Your task to perform on an android device: turn on airplane mode Image 0: 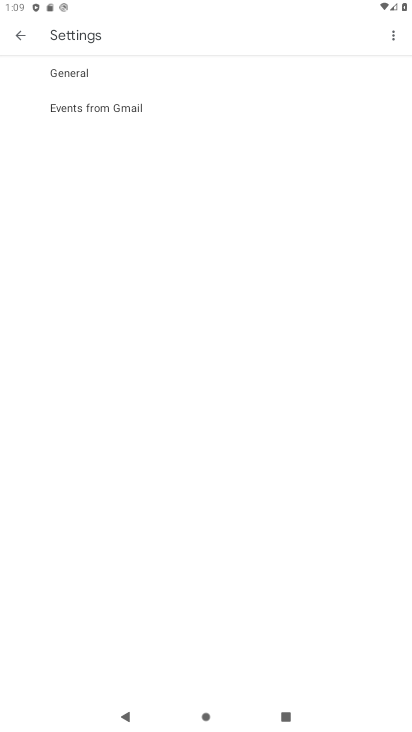
Step 0: press home button
Your task to perform on an android device: turn on airplane mode Image 1: 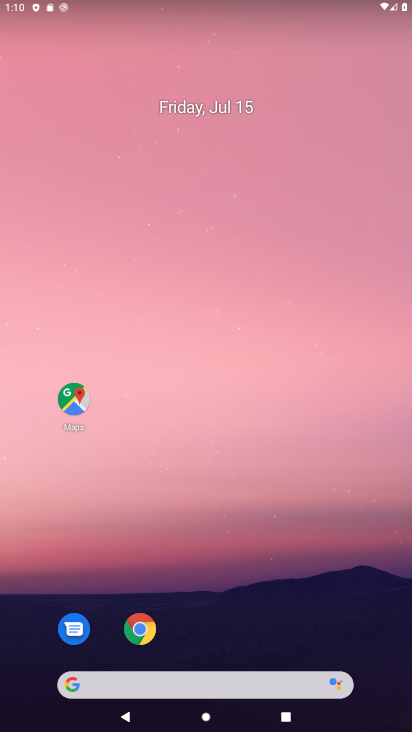
Step 1: drag from (369, 6) to (157, 729)
Your task to perform on an android device: turn on airplane mode Image 2: 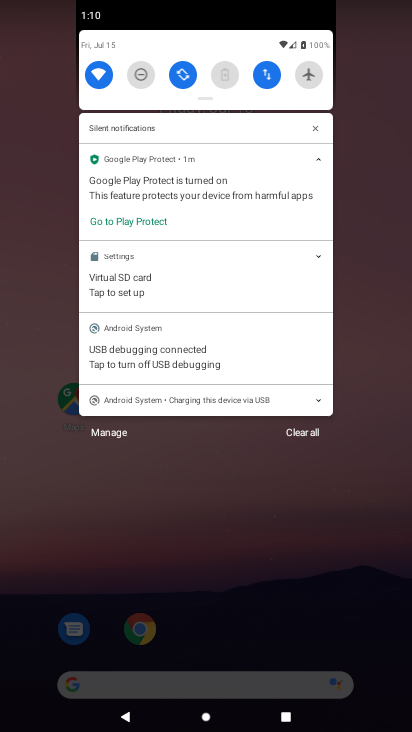
Step 2: click (304, 63)
Your task to perform on an android device: turn on airplane mode Image 3: 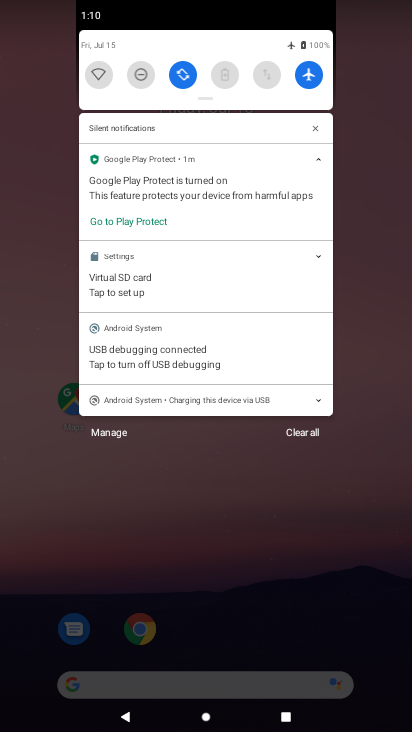
Step 3: task complete